Your task to perform on an android device: add a contact Image 0: 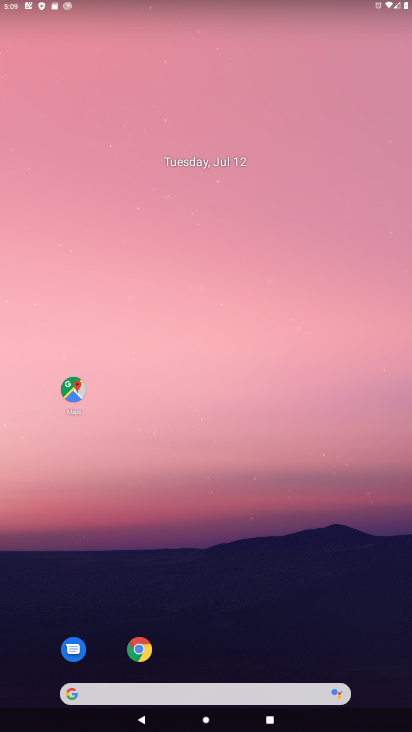
Step 0: drag from (212, 695) to (212, 169)
Your task to perform on an android device: add a contact Image 1: 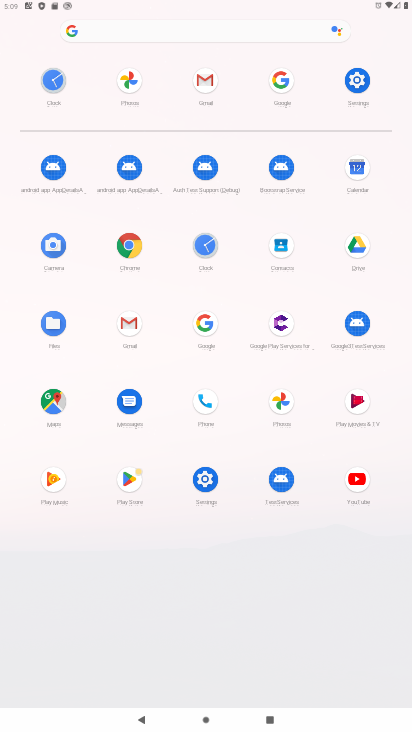
Step 1: click (280, 243)
Your task to perform on an android device: add a contact Image 2: 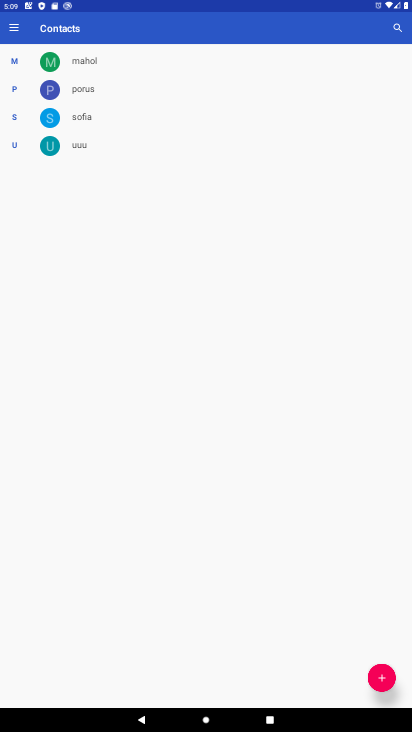
Step 2: click (378, 677)
Your task to perform on an android device: add a contact Image 3: 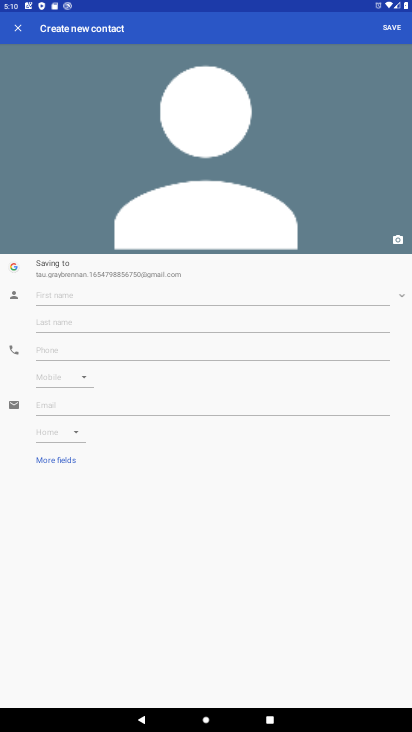
Step 3: click (138, 296)
Your task to perform on an android device: add a contact Image 4: 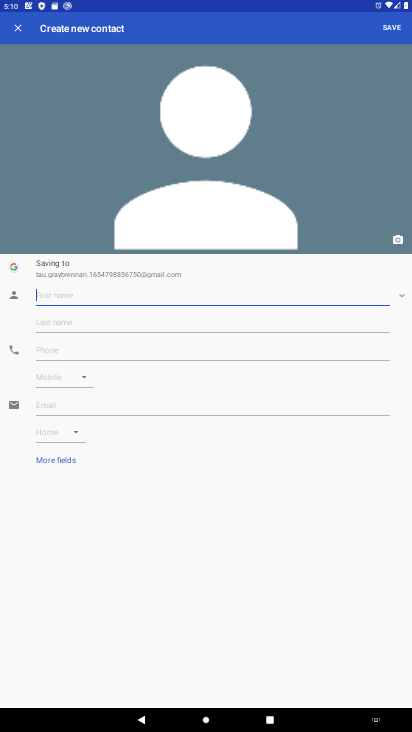
Step 4: type "Lavanya"
Your task to perform on an android device: add a contact Image 5: 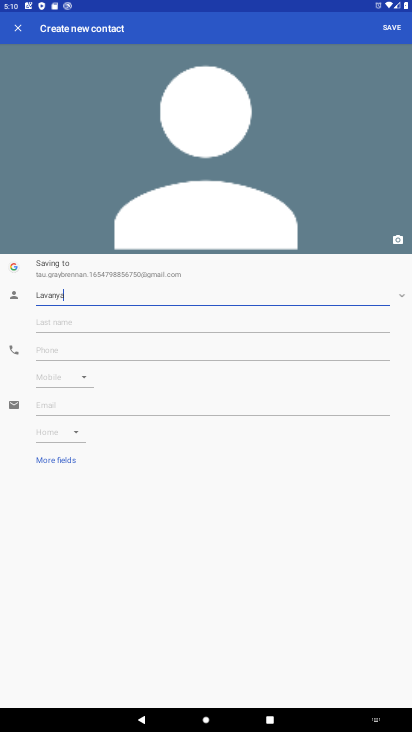
Step 5: click (131, 323)
Your task to perform on an android device: add a contact Image 6: 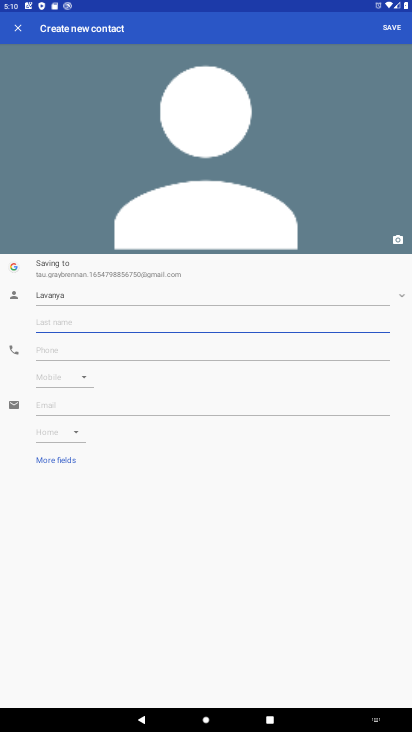
Step 6: type "Tripathi"
Your task to perform on an android device: add a contact Image 7: 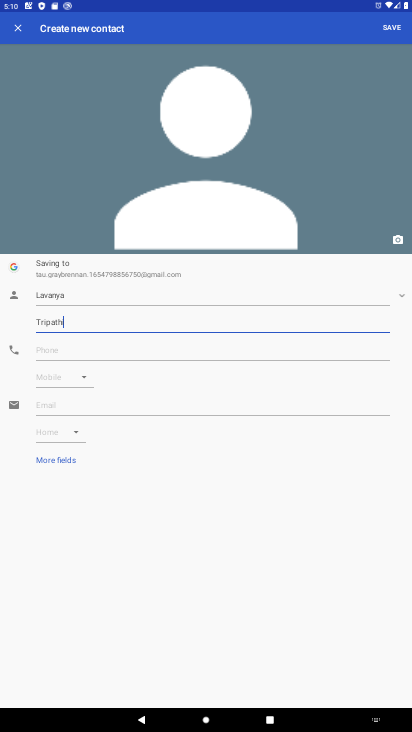
Step 7: click (279, 350)
Your task to perform on an android device: add a contact Image 8: 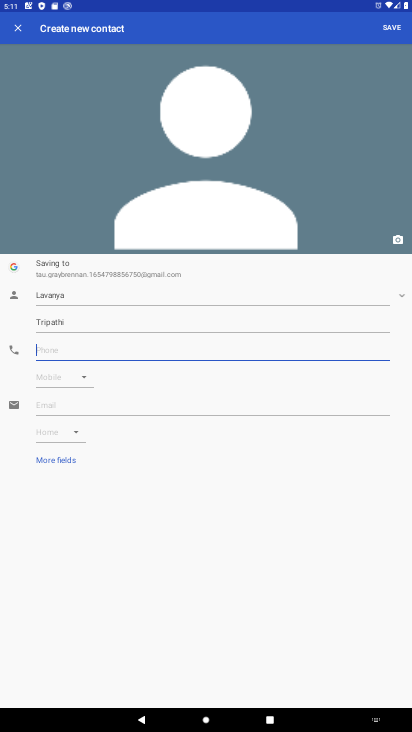
Step 8: type "09988776655"
Your task to perform on an android device: add a contact Image 9: 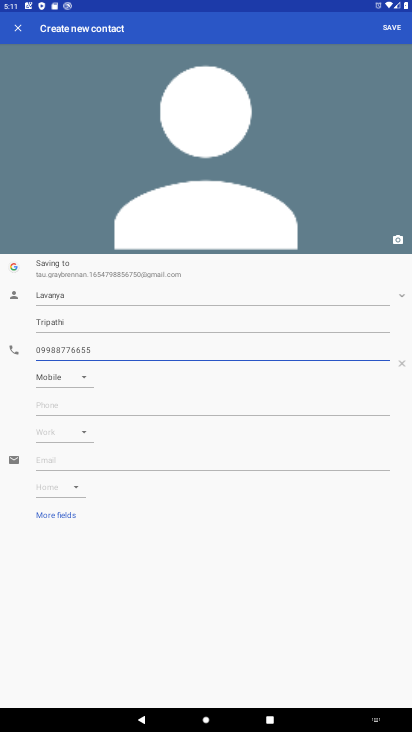
Step 9: click (393, 27)
Your task to perform on an android device: add a contact Image 10: 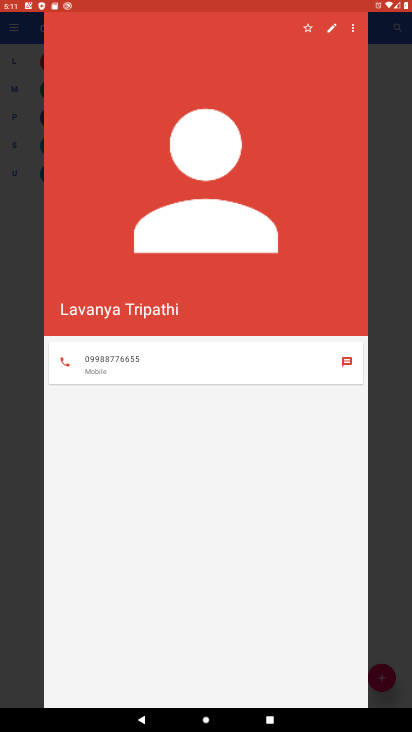
Step 10: task complete